Your task to perform on an android device: Check the news Image 0: 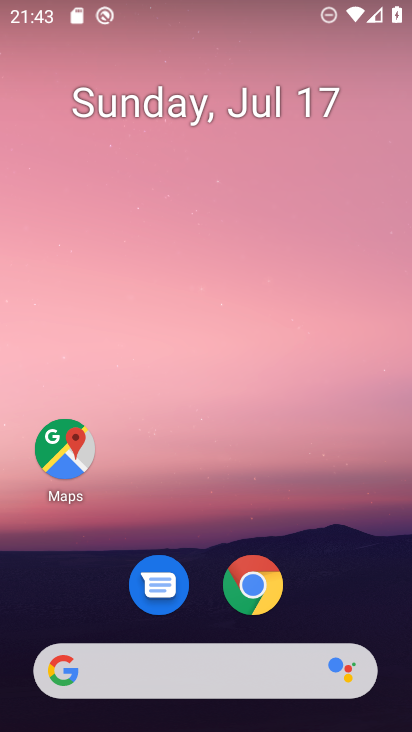
Step 0: click (169, 668)
Your task to perform on an android device: Check the news Image 1: 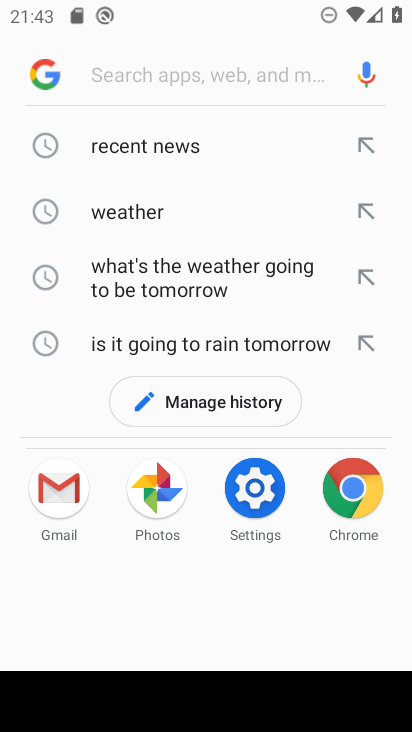
Step 1: click (156, 149)
Your task to perform on an android device: Check the news Image 2: 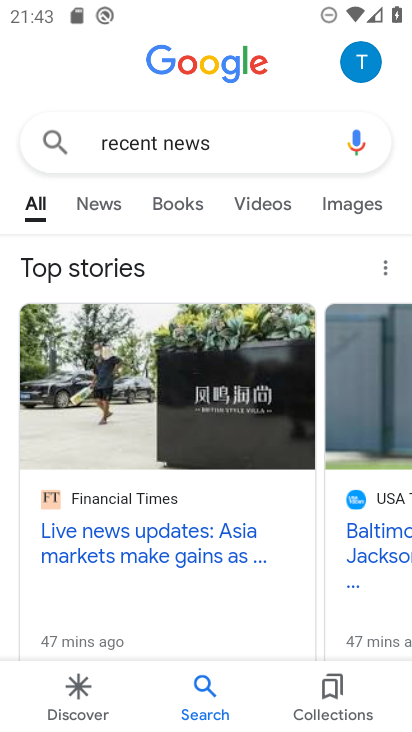
Step 2: click (109, 199)
Your task to perform on an android device: Check the news Image 3: 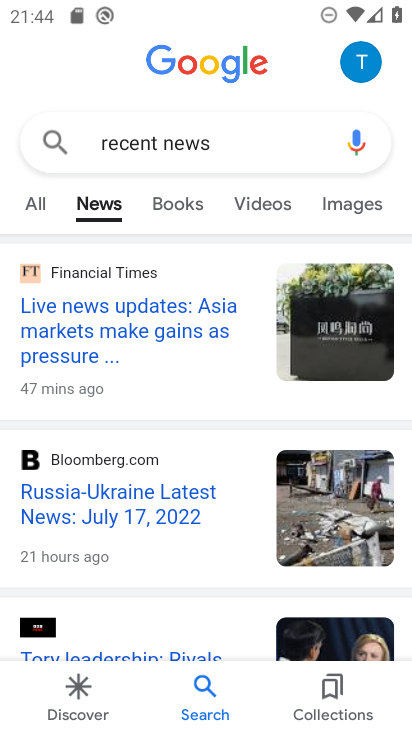
Step 3: task complete